Your task to perform on an android device: toggle translation in the chrome app Image 0: 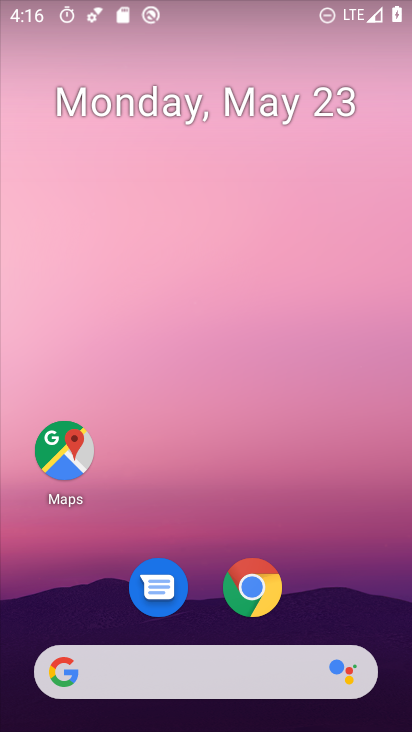
Step 0: drag from (209, 615) to (213, 180)
Your task to perform on an android device: toggle translation in the chrome app Image 1: 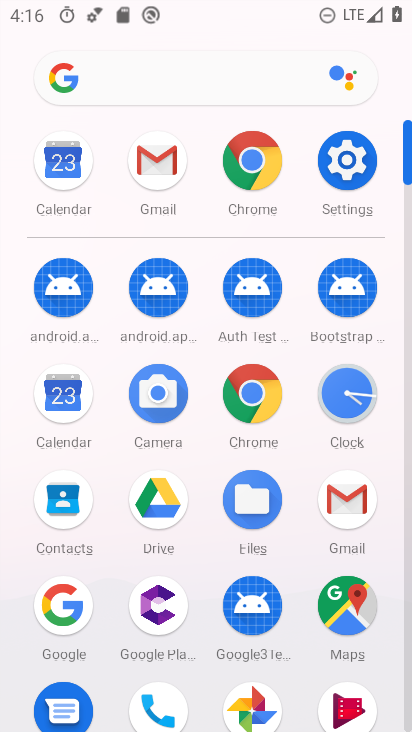
Step 1: click (267, 401)
Your task to perform on an android device: toggle translation in the chrome app Image 2: 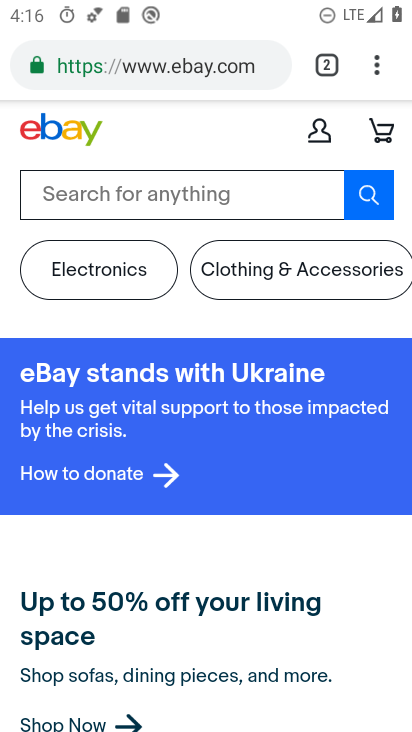
Step 2: click (373, 63)
Your task to perform on an android device: toggle translation in the chrome app Image 3: 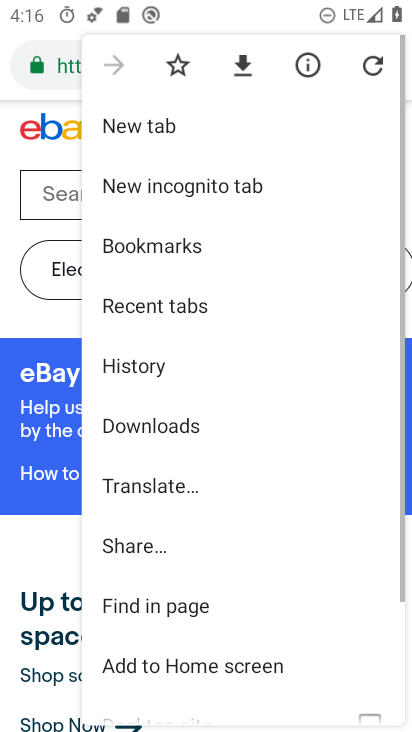
Step 3: drag from (153, 625) to (183, 271)
Your task to perform on an android device: toggle translation in the chrome app Image 4: 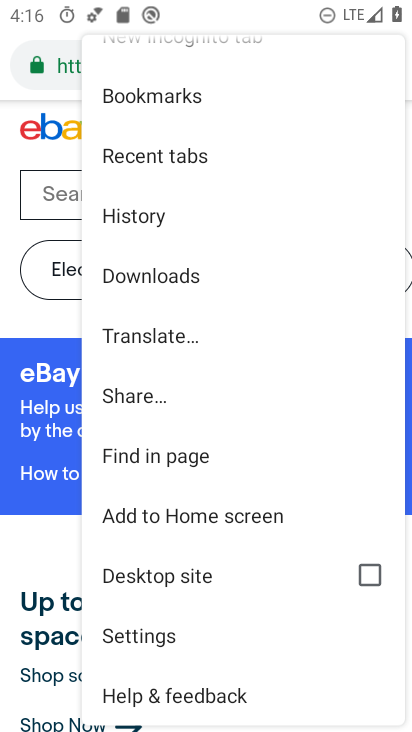
Step 4: click (139, 641)
Your task to perform on an android device: toggle translation in the chrome app Image 5: 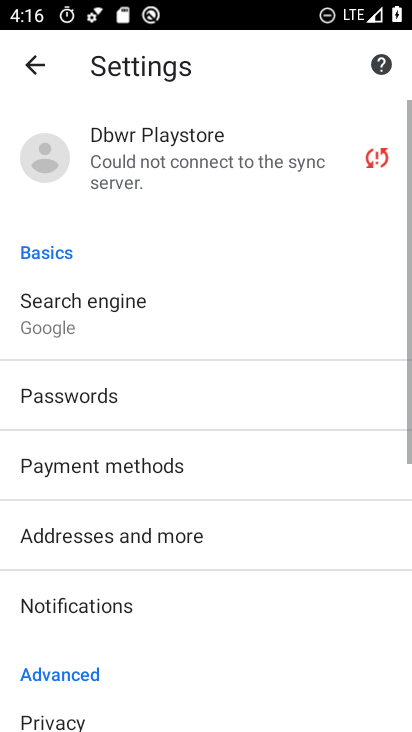
Step 5: drag from (159, 627) to (167, 291)
Your task to perform on an android device: toggle translation in the chrome app Image 6: 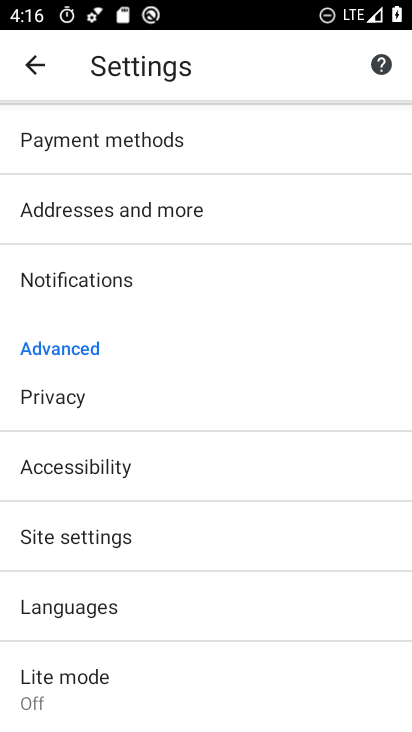
Step 6: drag from (138, 611) to (146, 338)
Your task to perform on an android device: toggle translation in the chrome app Image 7: 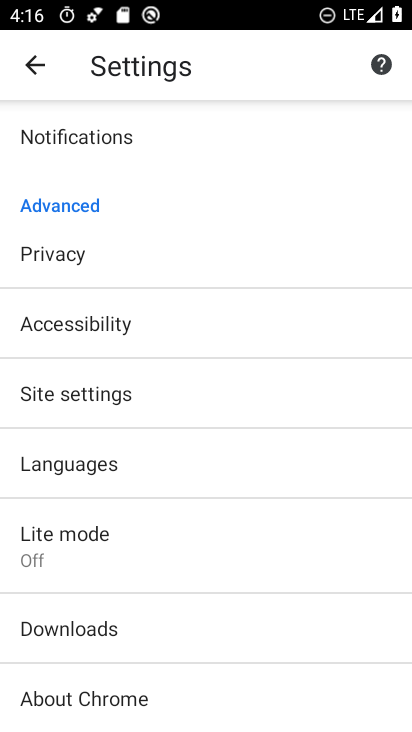
Step 7: click (83, 466)
Your task to perform on an android device: toggle translation in the chrome app Image 8: 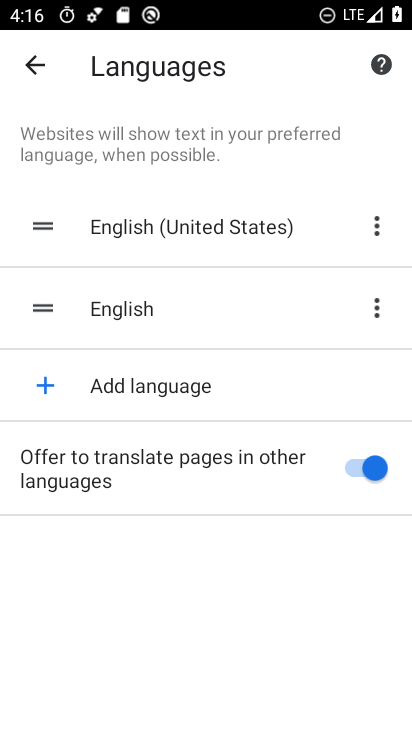
Step 8: click (342, 463)
Your task to perform on an android device: toggle translation in the chrome app Image 9: 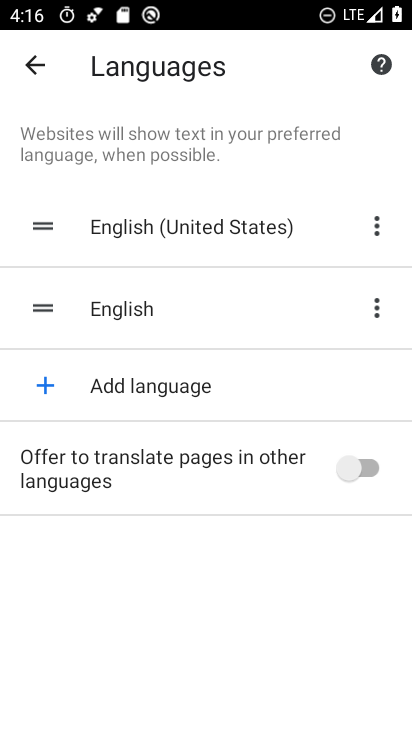
Step 9: task complete